Your task to perform on an android device: move an email to a new category in the gmail app Image 0: 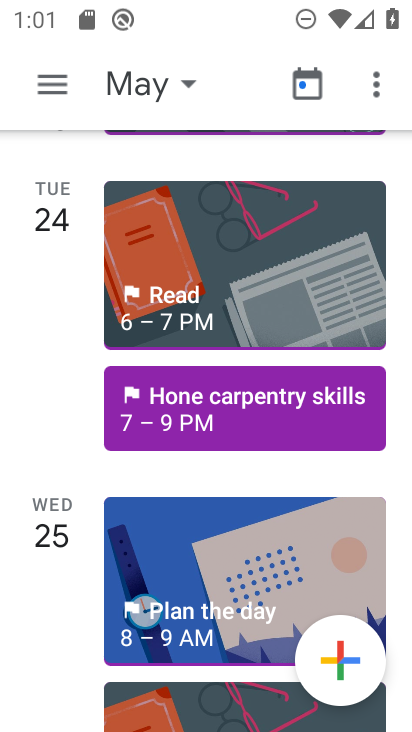
Step 0: press home button
Your task to perform on an android device: move an email to a new category in the gmail app Image 1: 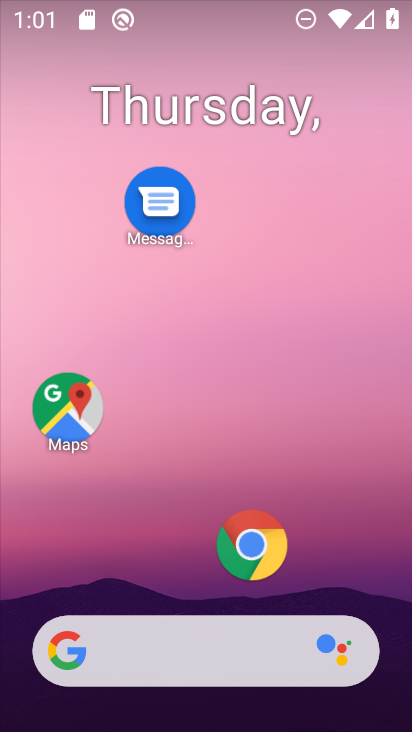
Step 1: drag from (199, 572) to (241, 236)
Your task to perform on an android device: move an email to a new category in the gmail app Image 2: 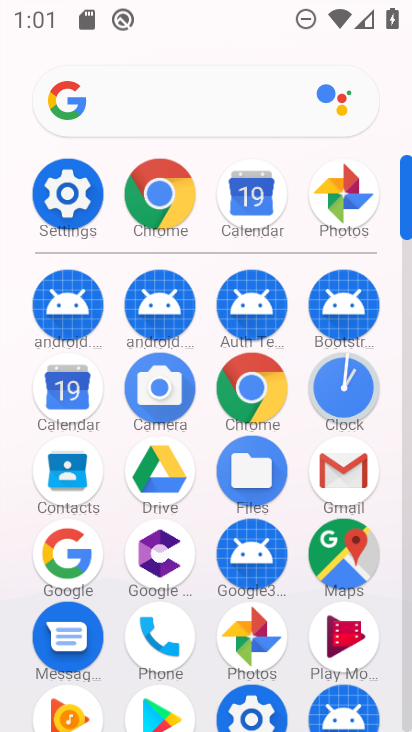
Step 2: click (314, 471)
Your task to perform on an android device: move an email to a new category in the gmail app Image 3: 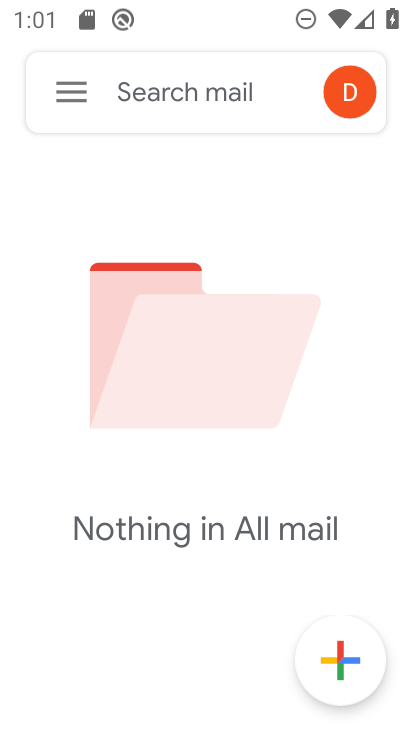
Step 3: click (71, 81)
Your task to perform on an android device: move an email to a new category in the gmail app Image 4: 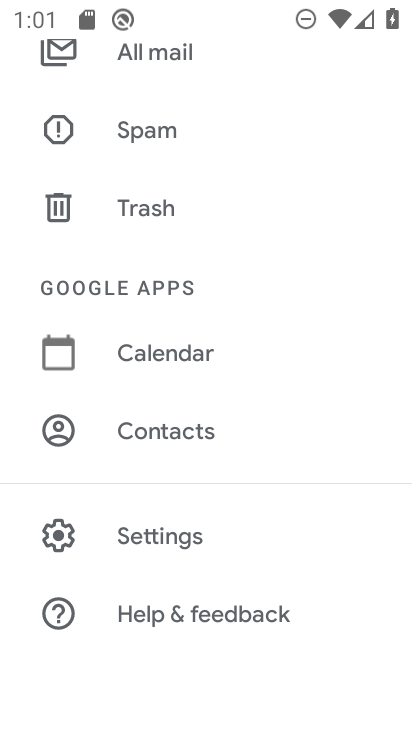
Step 4: click (174, 64)
Your task to perform on an android device: move an email to a new category in the gmail app Image 5: 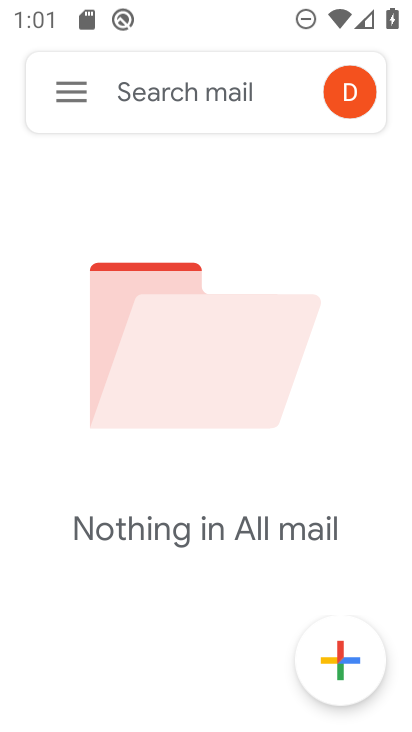
Step 5: task complete